Your task to perform on an android device: Open Yahoo.com Image 0: 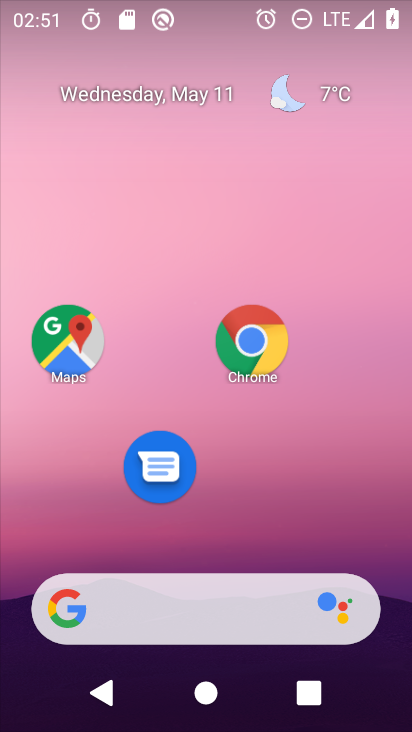
Step 0: drag from (152, 605) to (263, 108)
Your task to perform on an android device: Open Yahoo.com Image 1: 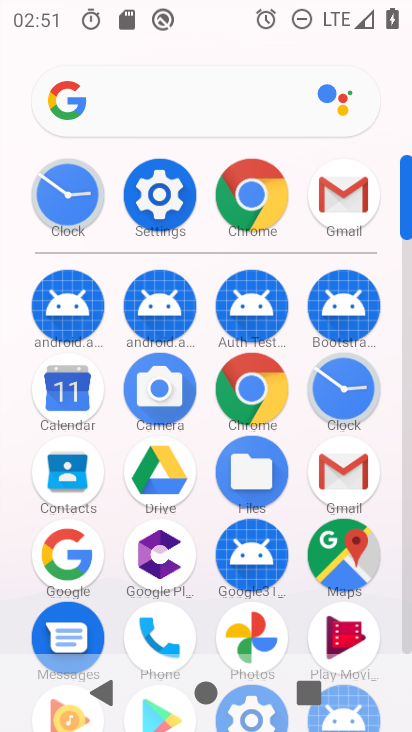
Step 1: click (251, 207)
Your task to perform on an android device: Open Yahoo.com Image 2: 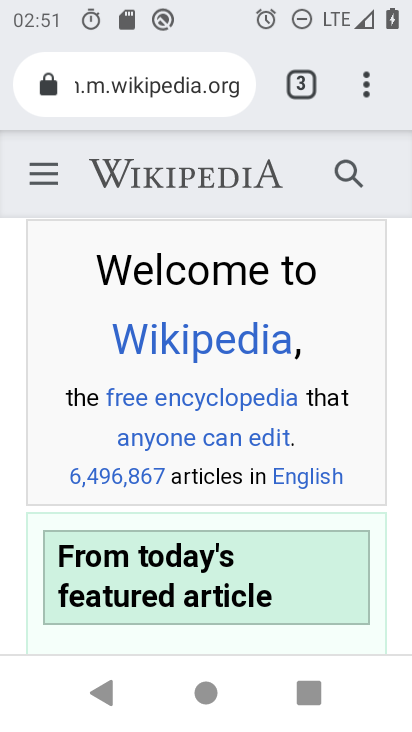
Step 2: drag from (367, 91) to (248, 164)
Your task to perform on an android device: Open Yahoo.com Image 3: 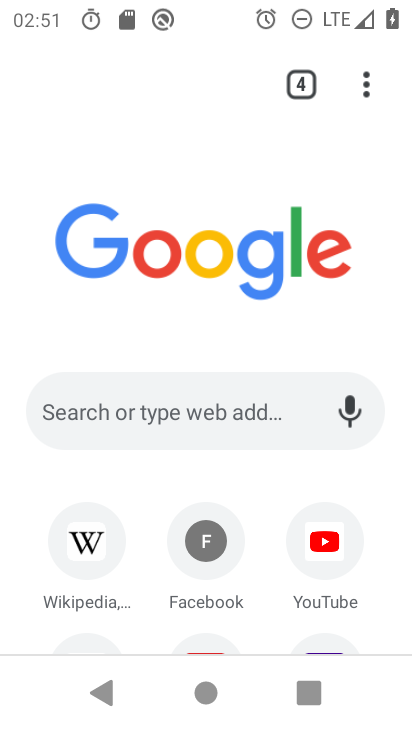
Step 3: drag from (176, 492) to (264, 150)
Your task to perform on an android device: Open Yahoo.com Image 4: 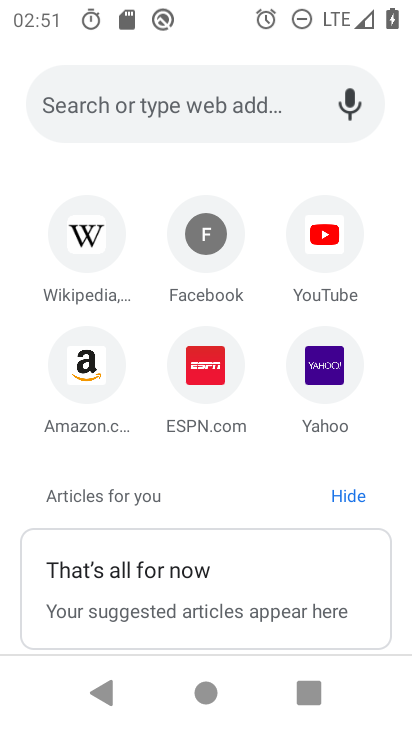
Step 4: click (320, 368)
Your task to perform on an android device: Open Yahoo.com Image 5: 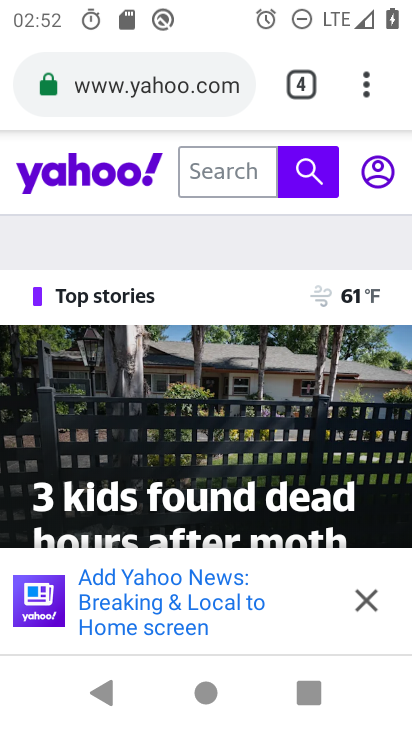
Step 5: task complete